Your task to perform on an android device: When is my next meeting? Image 0: 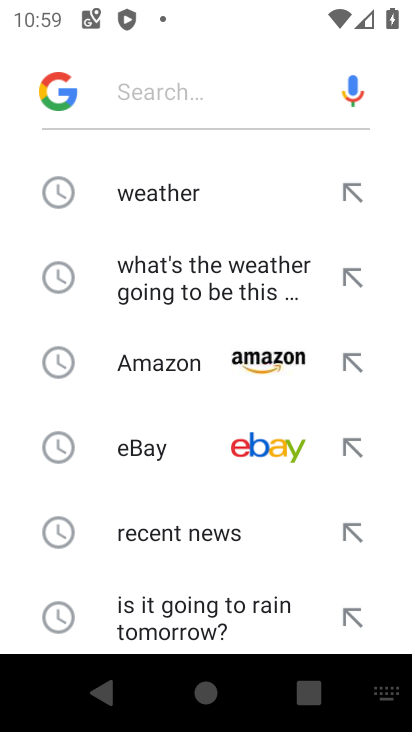
Step 0: press home button
Your task to perform on an android device: When is my next meeting? Image 1: 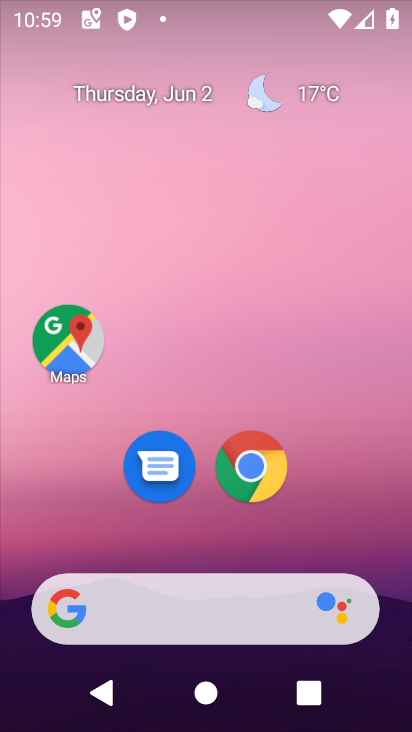
Step 1: drag from (148, 531) to (191, 223)
Your task to perform on an android device: When is my next meeting? Image 2: 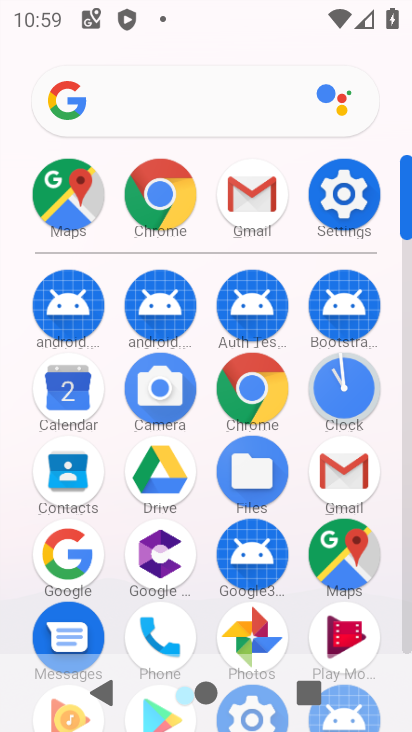
Step 2: click (73, 401)
Your task to perform on an android device: When is my next meeting? Image 3: 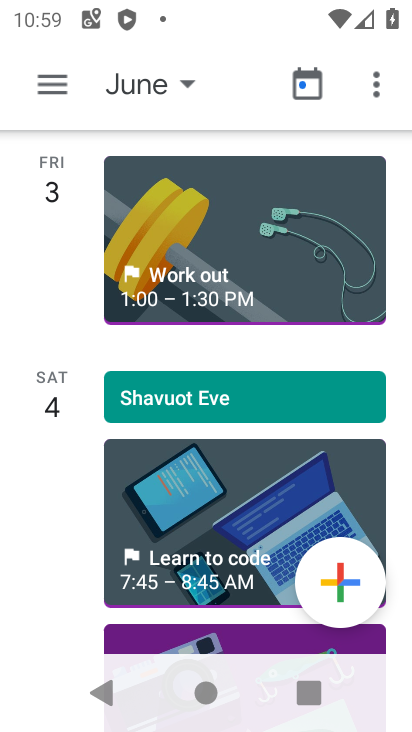
Step 3: task complete